Your task to perform on an android device: delete browsing data in the chrome app Image 0: 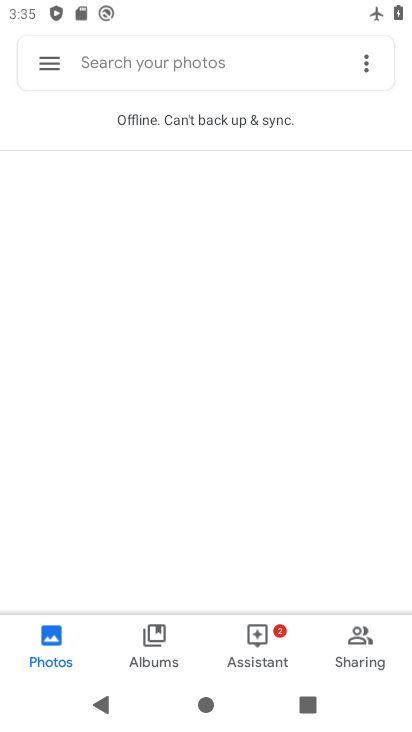
Step 0: press home button
Your task to perform on an android device: delete browsing data in the chrome app Image 1: 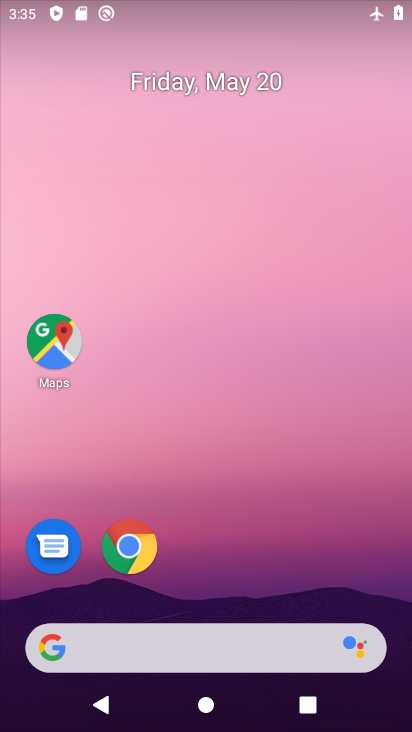
Step 1: click (120, 542)
Your task to perform on an android device: delete browsing data in the chrome app Image 2: 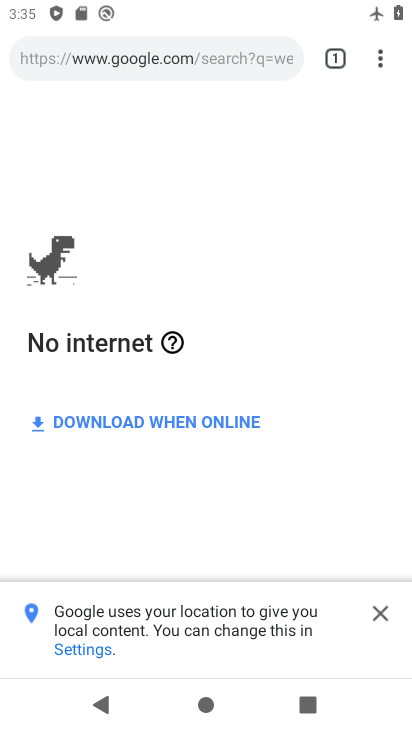
Step 2: task complete